Your task to perform on an android device: check google app version Image 0: 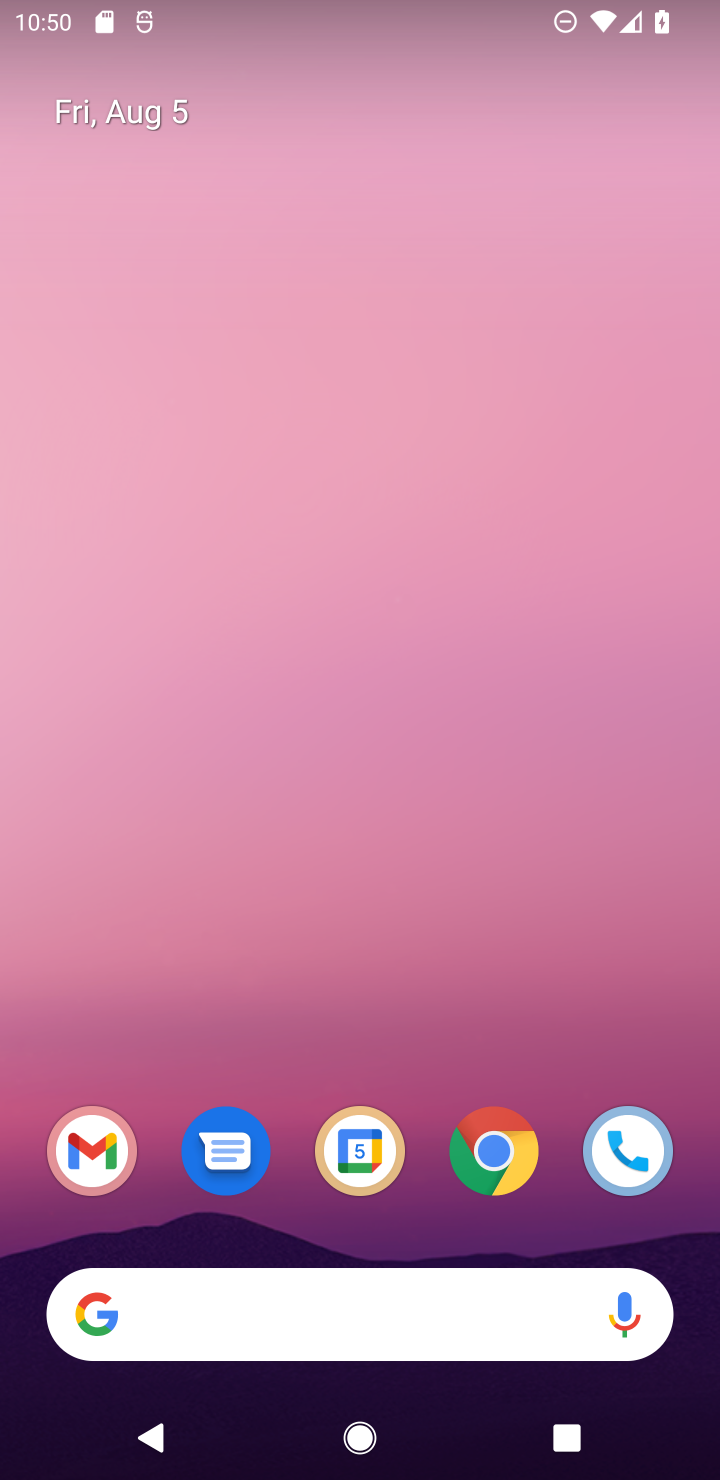
Step 0: drag from (317, 1179) to (315, 513)
Your task to perform on an android device: check google app version Image 1: 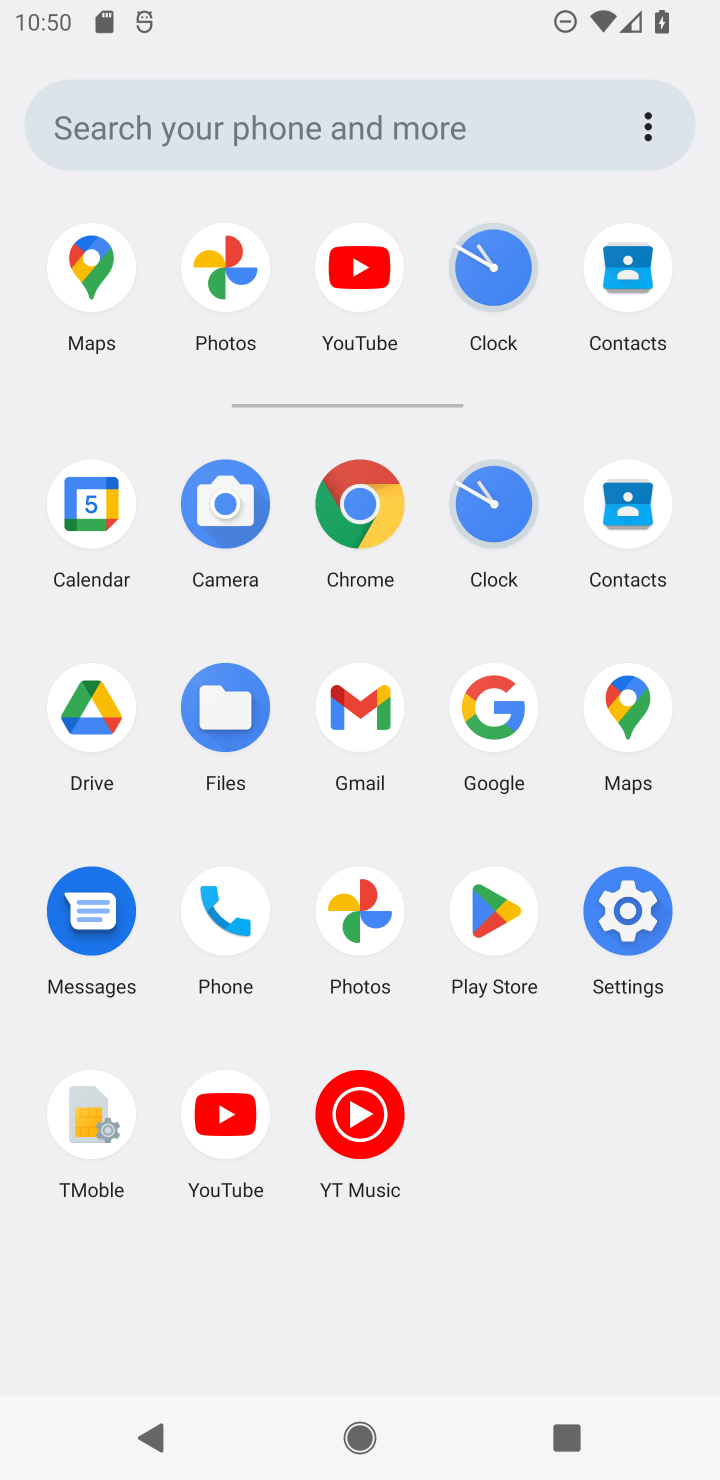
Step 1: click (493, 718)
Your task to perform on an android device: check google app version Image 2: 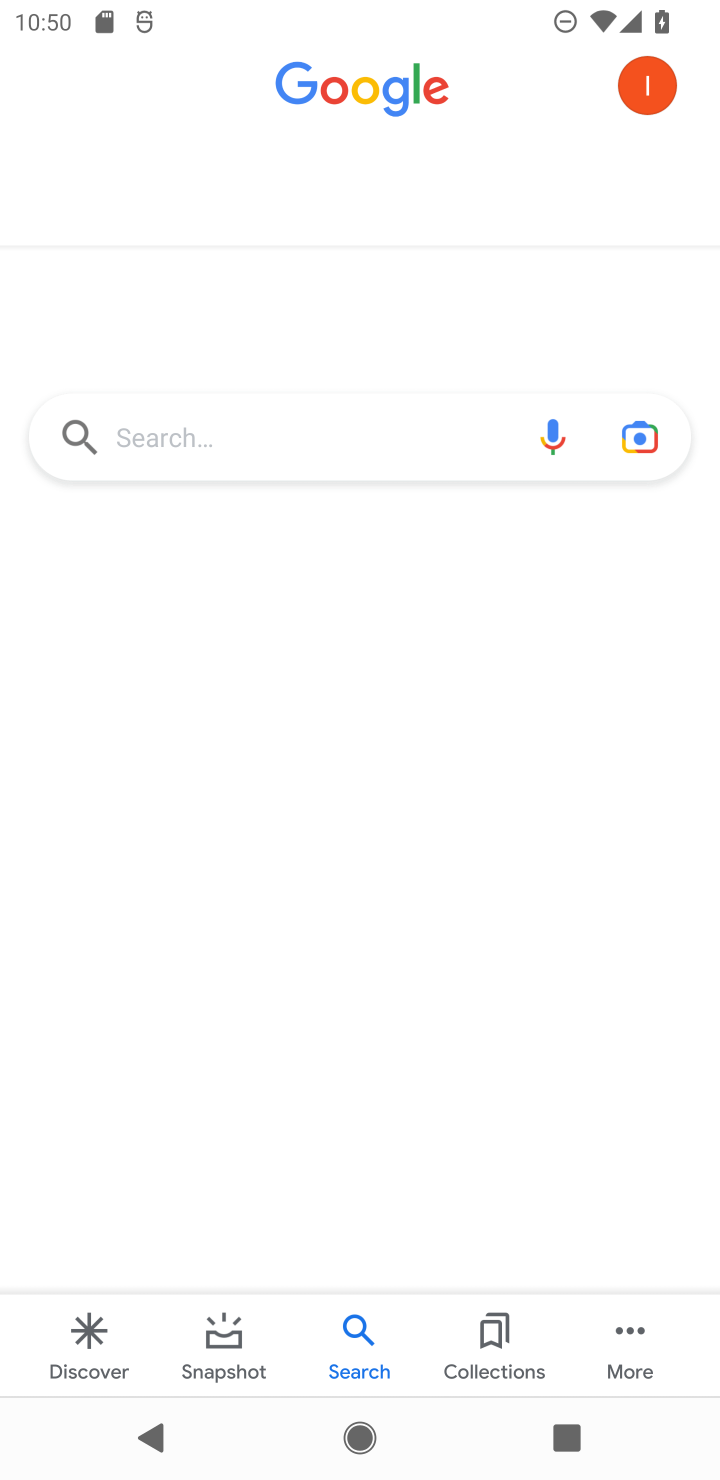
Step 2: click (653, 82)
Your task to perform on an android device: check google app version Image 3: 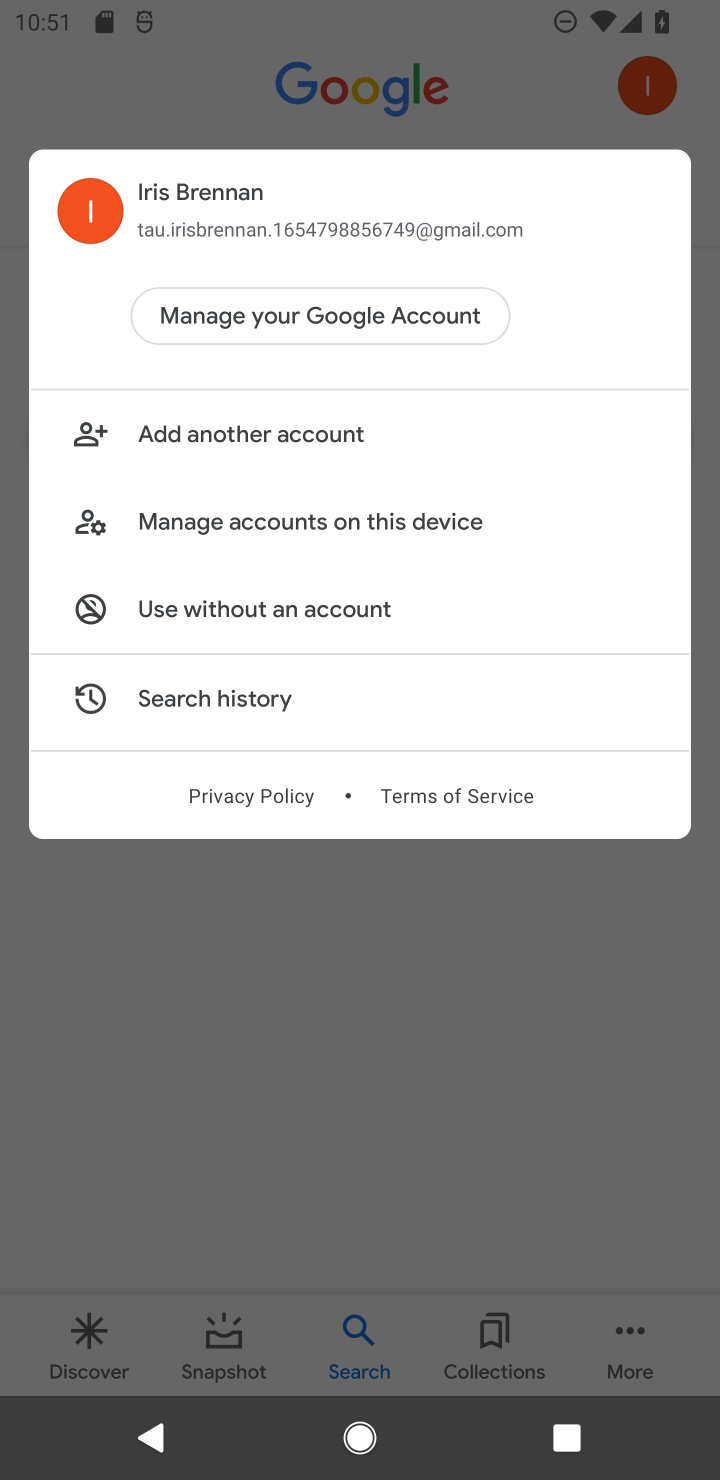
Step 3: click (241, 1083)
Your task to perform on an android device: check google app version Image 4: 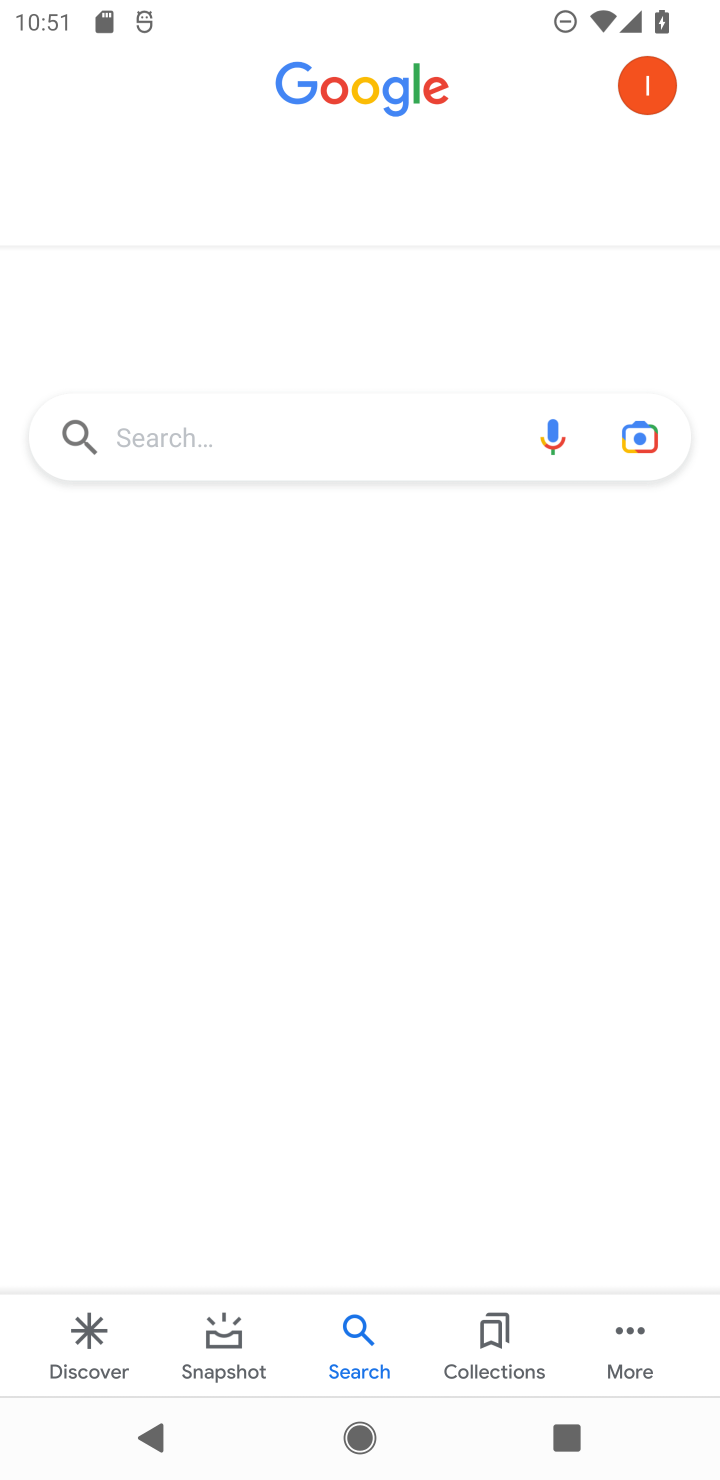
Step 4: click (650, 85)
Your task to perform on an android device: check google app version Image 5: 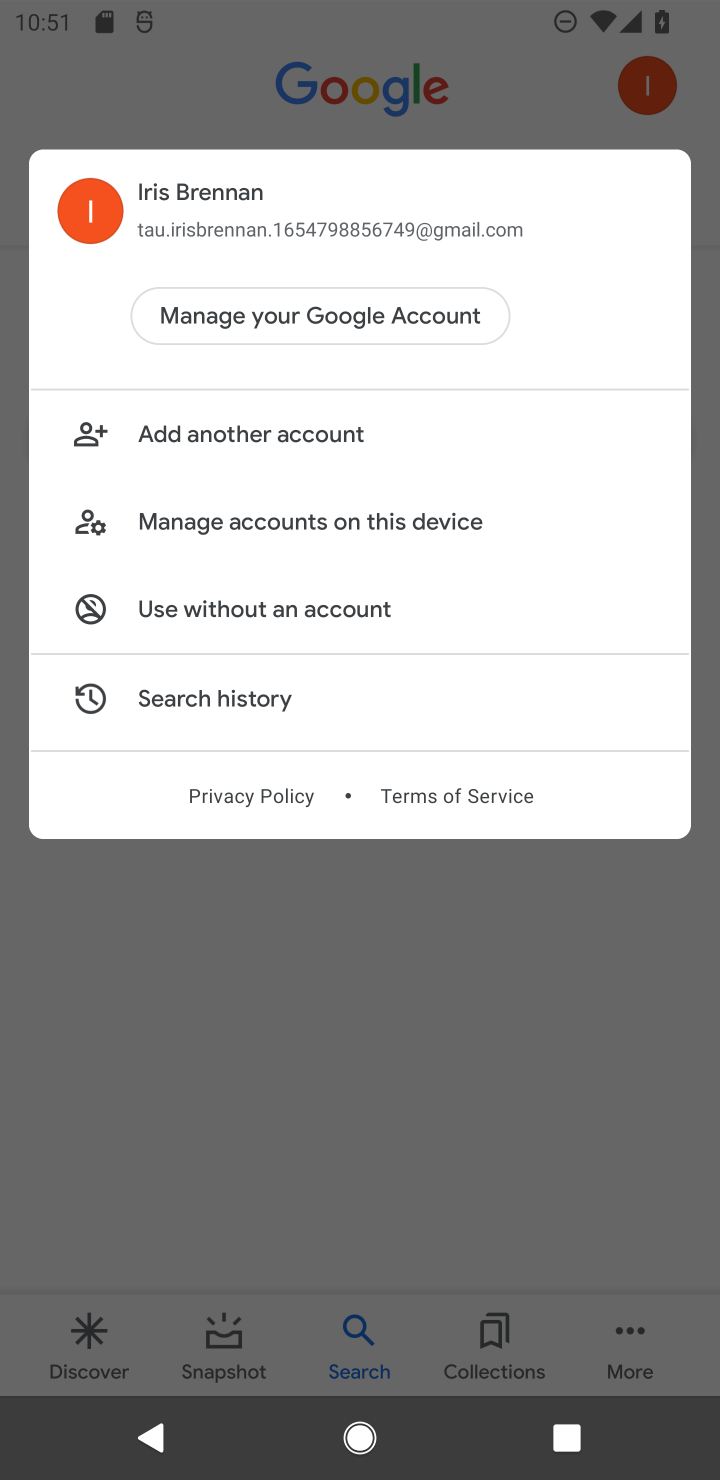
Step 5: click (634, 1351)
Your task to perform on an android device: check google app version Image 6: 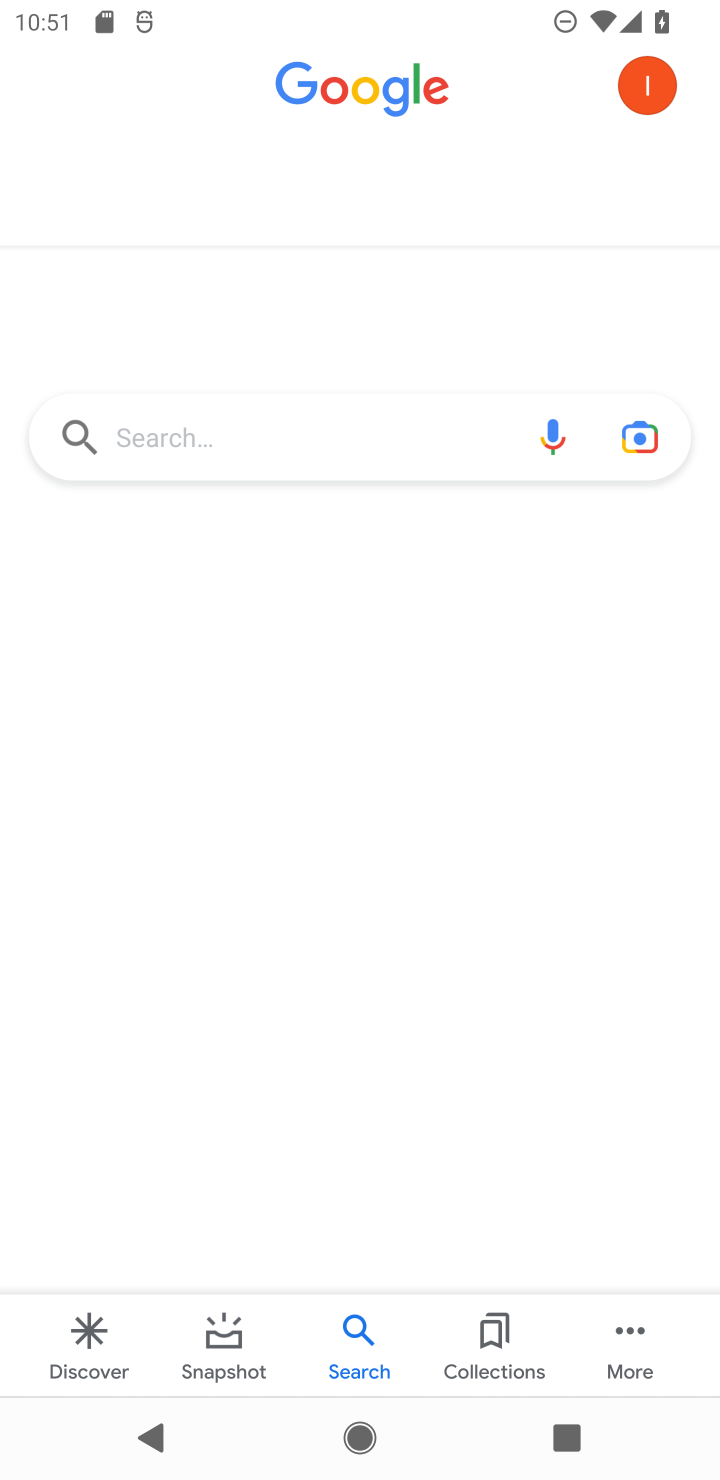
Step 6: click (634, 1351)
Your task to perform on an android device: check google app version Image 7: 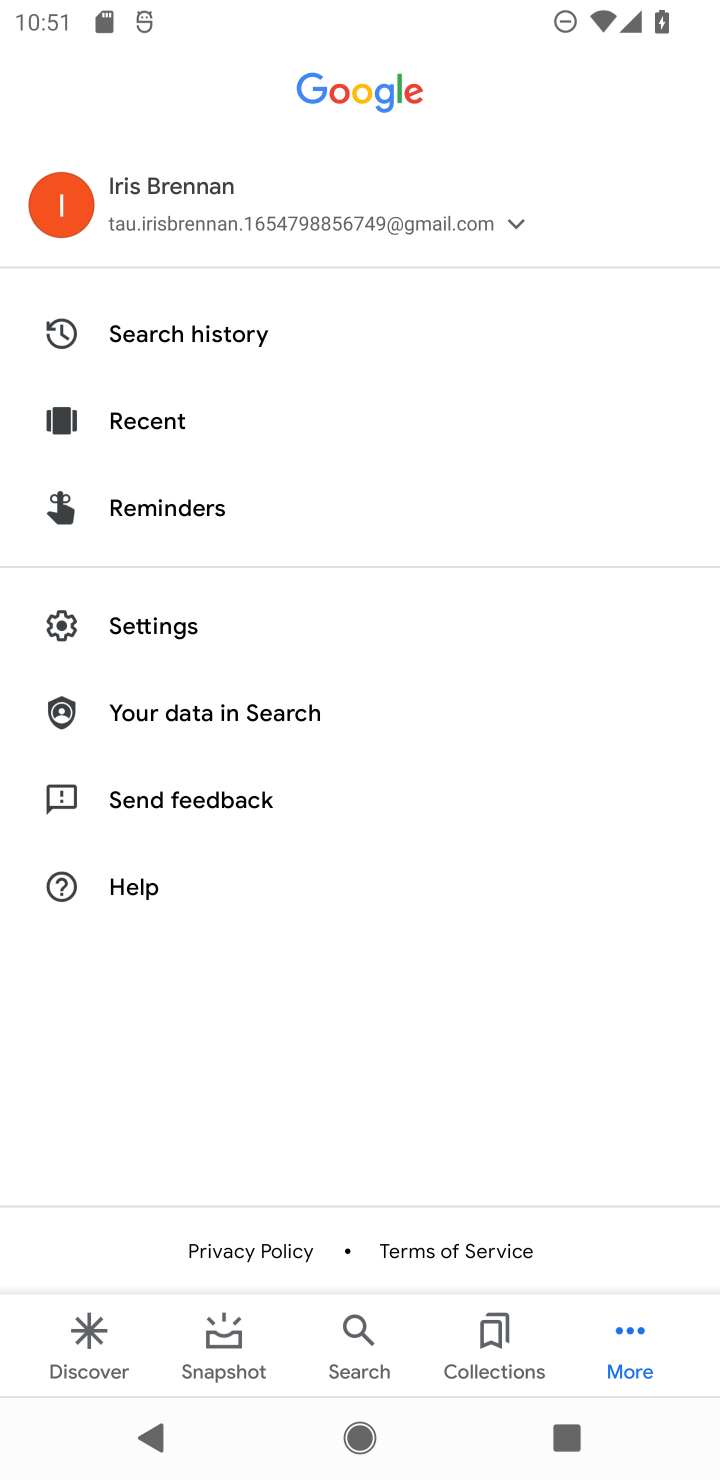
Step 7: click (178, 612)
Your task to perform on an android device: check google app version Image 8: 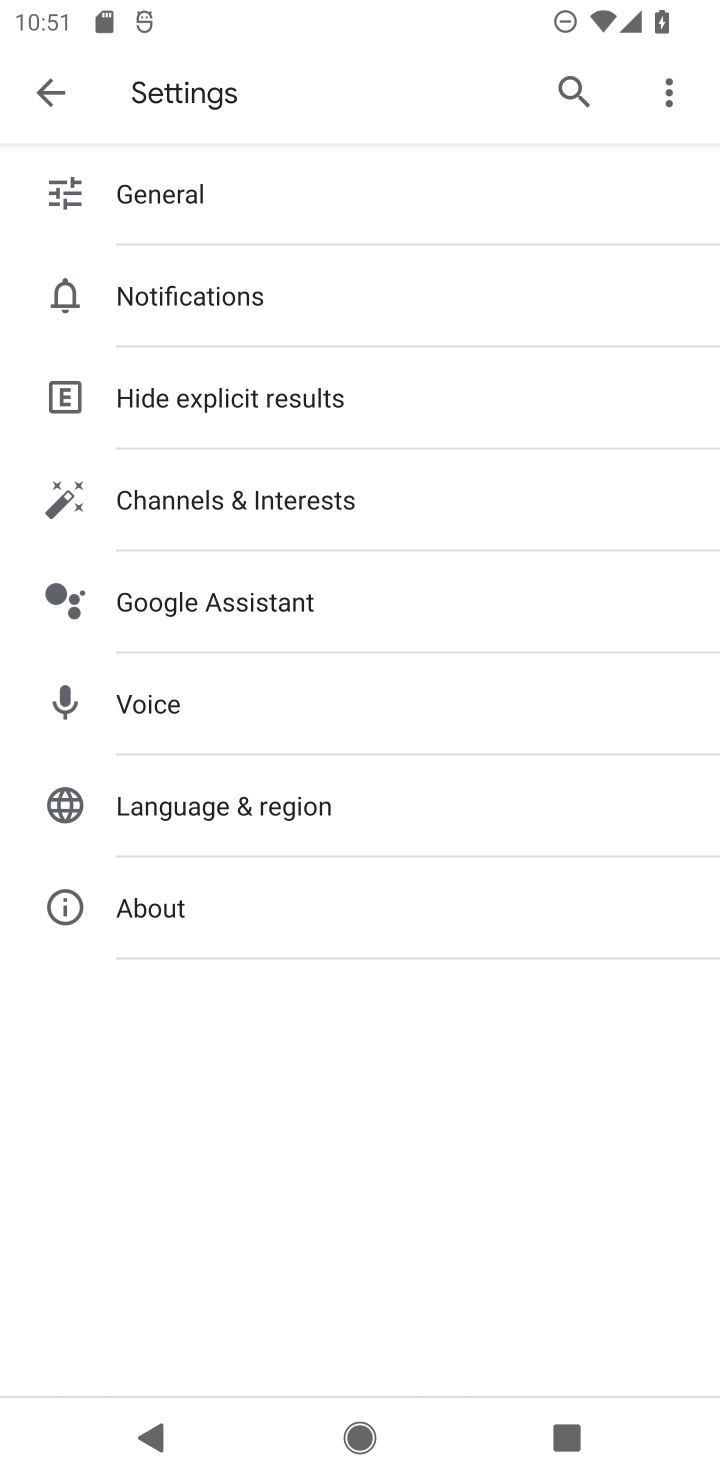
Step 8: click (157, 914)
Your task to perform on an android device: check google app version Image 9: 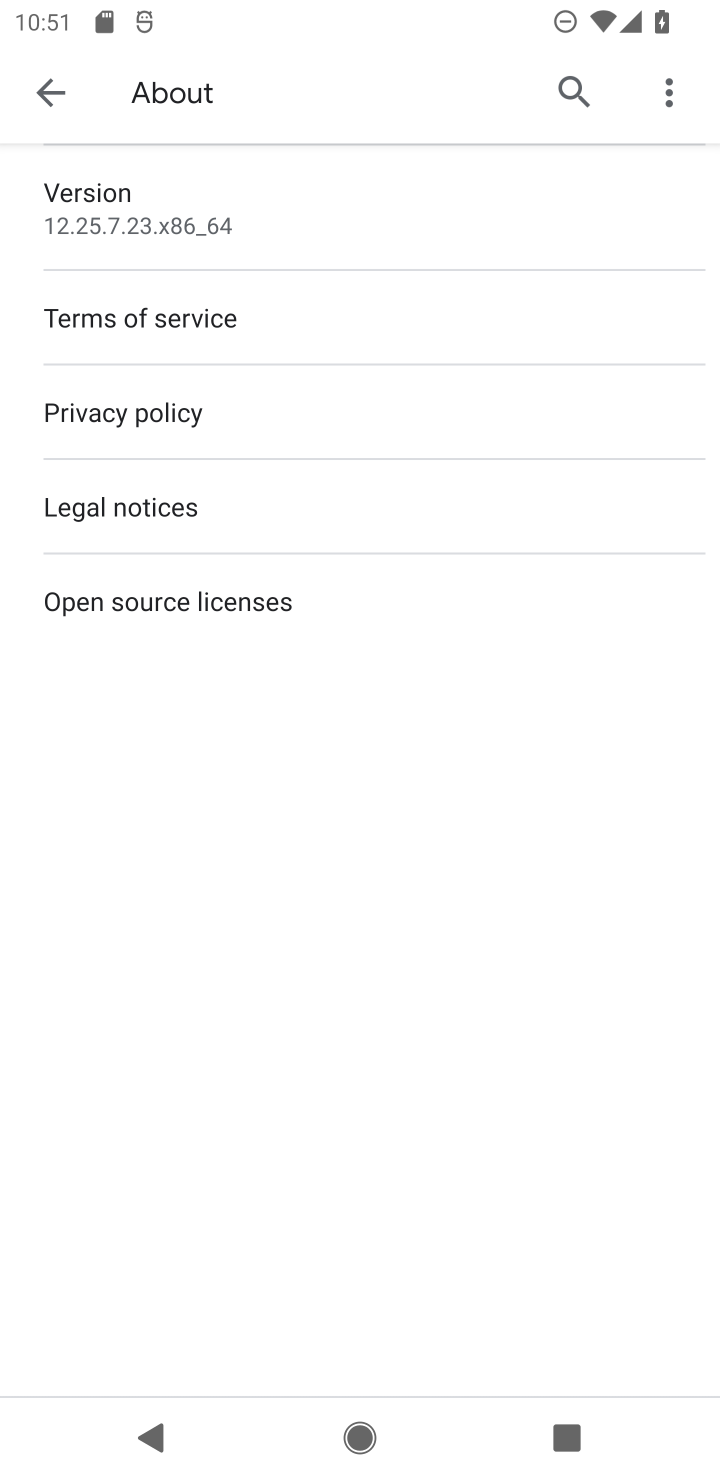
Step 9: task complete